Your task to perform on an android device: change your default location settings in chrome Image 0: 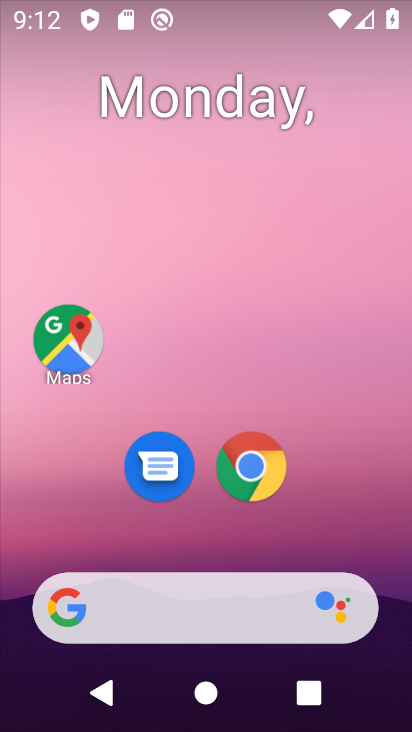
Step 0: drag from (278, 29) to (144, 34)
Your task to perform on an android device: change your default location settings in chrome Image 1: 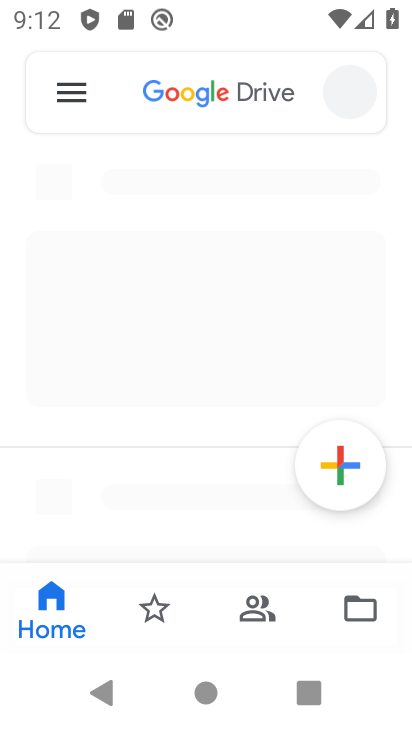
Step 1: drag from (234, 415) to (215, 31)
Your task to perform on an android device: change your default location settings in chrome Image 2: 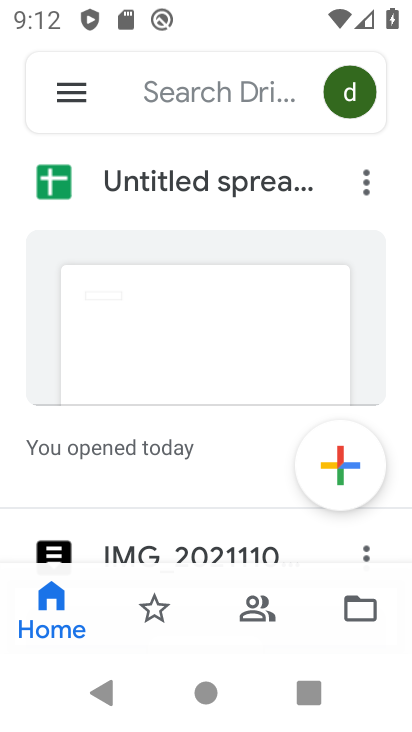
Step 2: press back button
Your task to perform on an android device: change your default location settings in chrome Image 3: 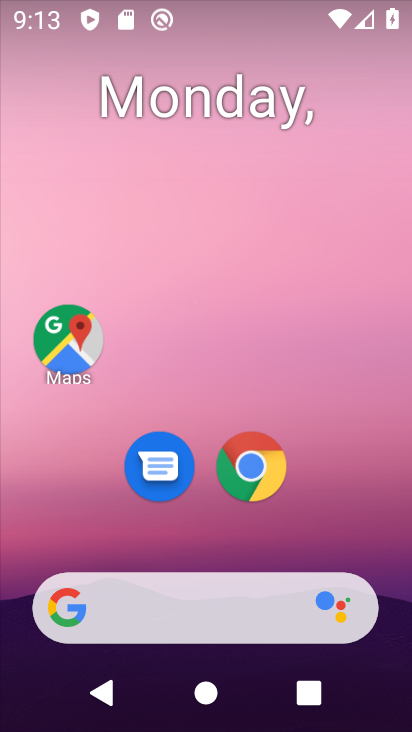
Step 3: drag from (356, 614) to (259, 153)
Your task to perform on an android device: change your default location settings in chrome Image 4: 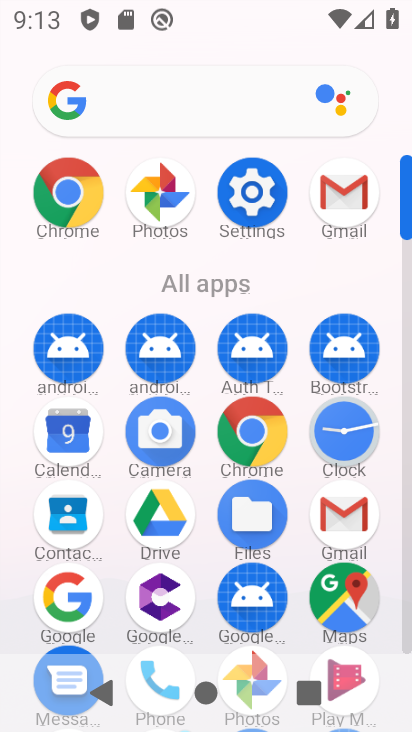
Step 4: click (236, 436)
Your task to perform on an android device: change your default location settings in chrome Image 5: 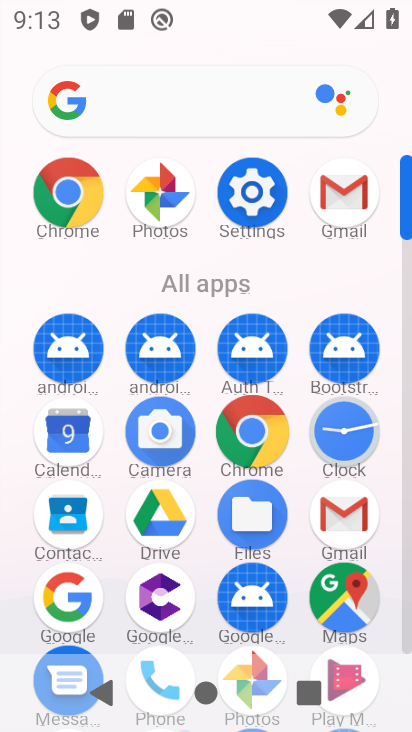
Step 5: click (236, 436)
Your task to perform on an android device: change your default location settings in chrome Image 6: 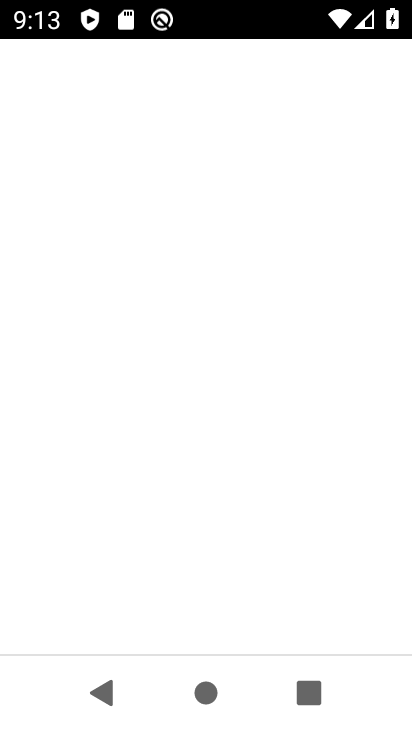
Step 6: click (238, 436)
Your task to perform on an android device: change your default location settings in chrome Image 7: 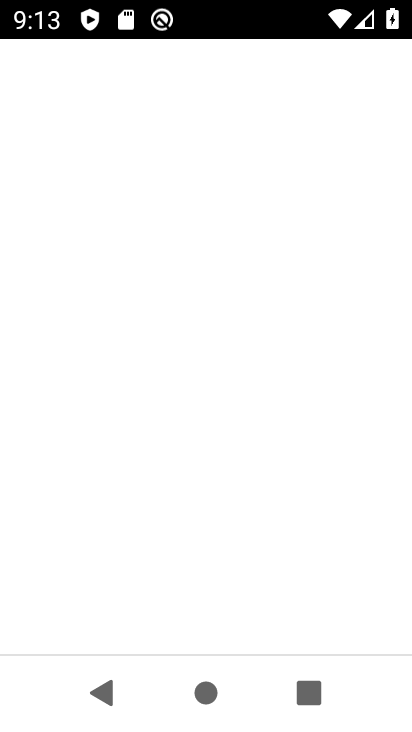
Step 7: click (239, 436)
Your task to perform on an android device: change your default location settings in chrome Image 8: 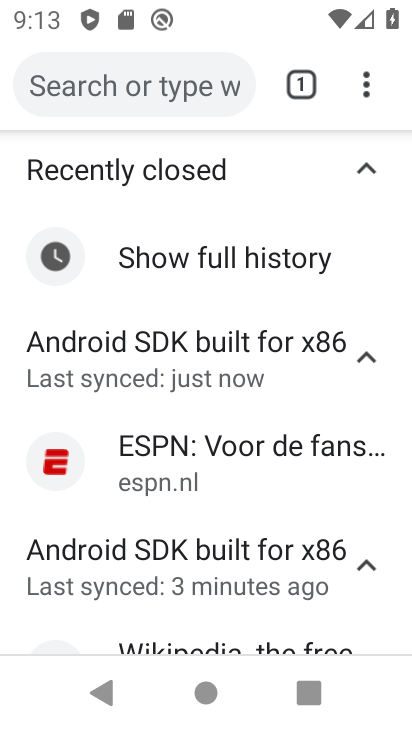
Step 8: drag from (361, 96) to (97, 518)
Your task to perform on an android device: change your default location settings in chrome Image 9: 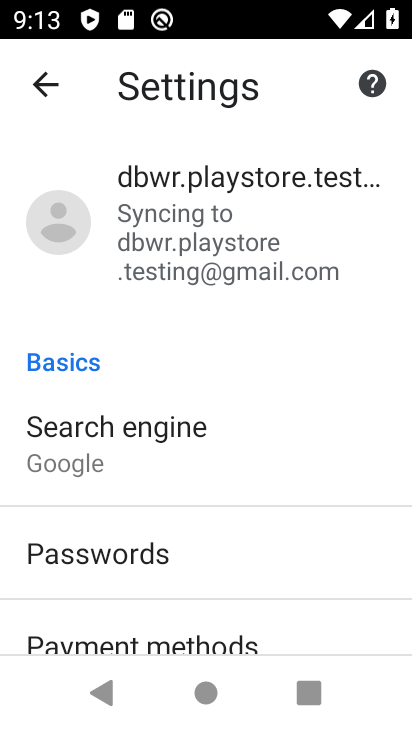
Step 9: drag from (194, 572) to (138, 213)
Your task to perform on an android device: change your default location settings in chrome Image 10: 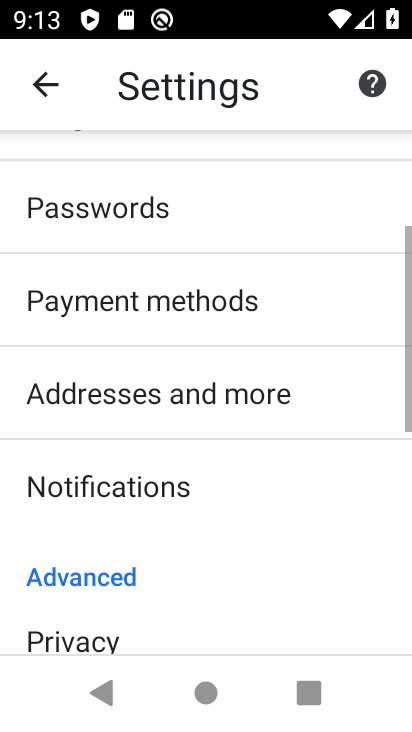
Step 10: drag from (235, 402) to (250, 168)
Your task to perform on an android device: change your default location settings in chrome Image 11: 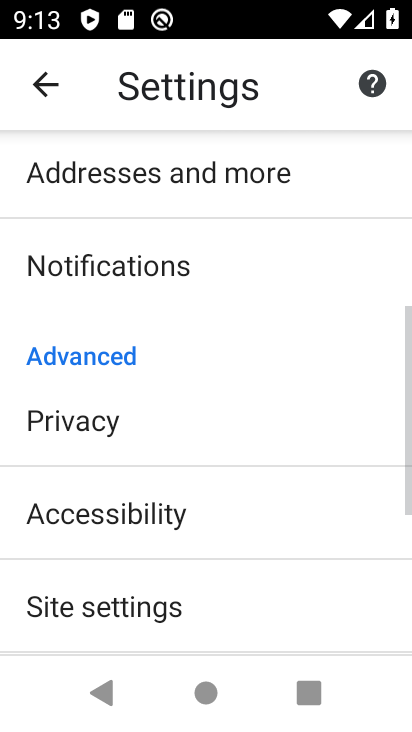
Step 11: drag from (227, 360) to (267, 175)
Your task to perform on an android device: change your default location settings in chrome Image 12: 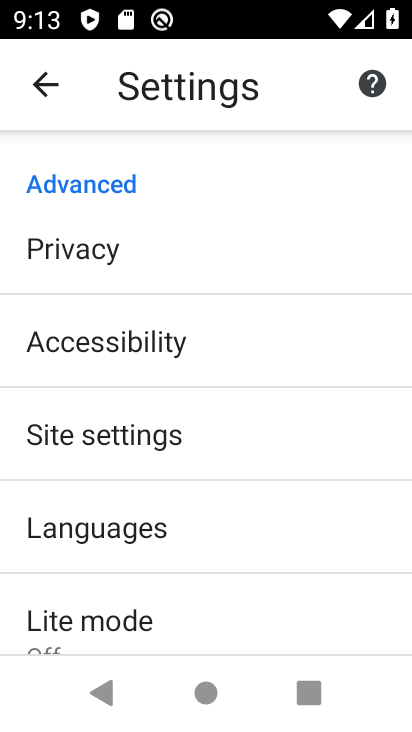
Step 12: click (83, 442)
Your task to perform on an android device: change your default location settings in chrome Image 13: 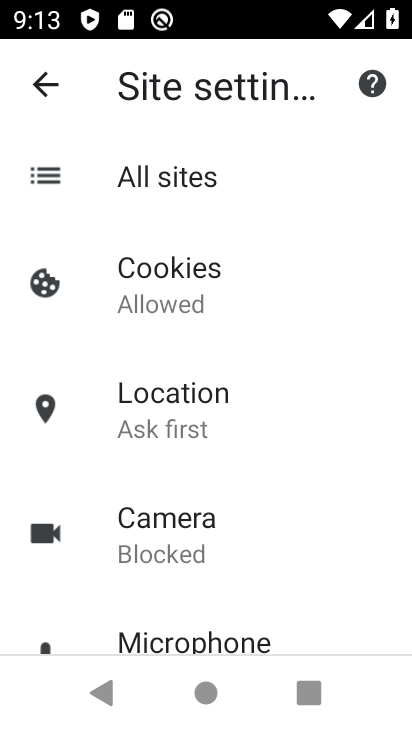
Step 13: click (169, 409)
Your task to perform on an android device: change your default location settings in chrome Image 14: 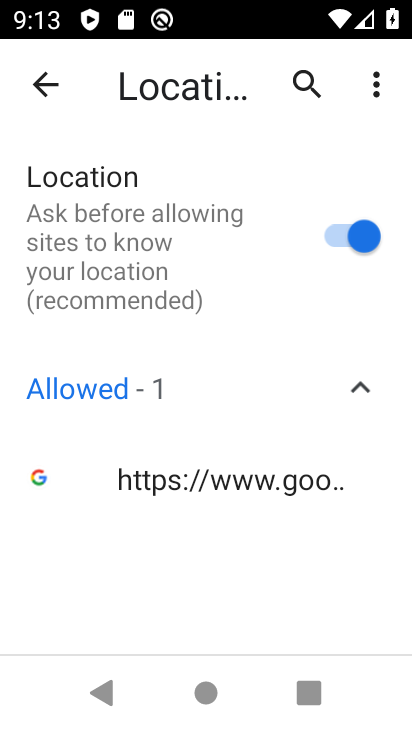
Step 14: click (348, 241)
Your task to perform on an android device: change your default location settings in chrome Image 15: 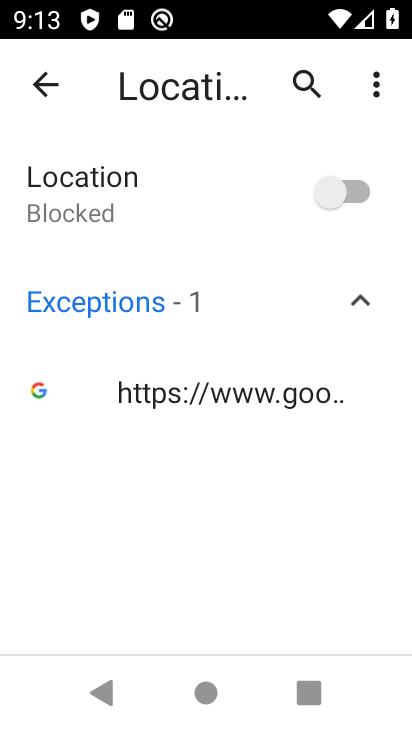
Step 15: task complete